Your task to perform on an android device: Open settings Image 0: 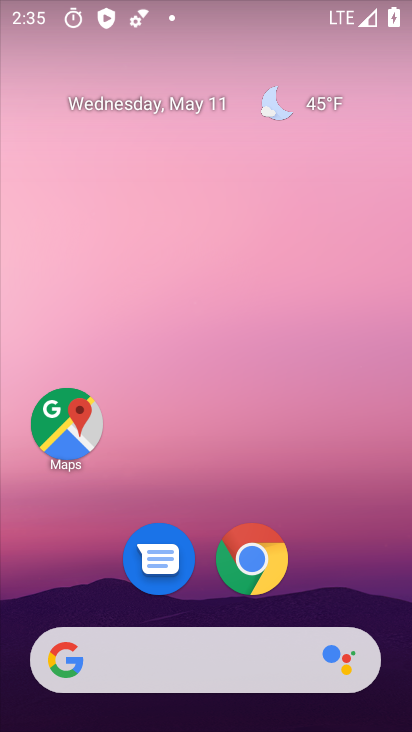
Step 0: drag from (317, 528) to (187, 93)
Your task to perform on an android device: Open settings Image 1: 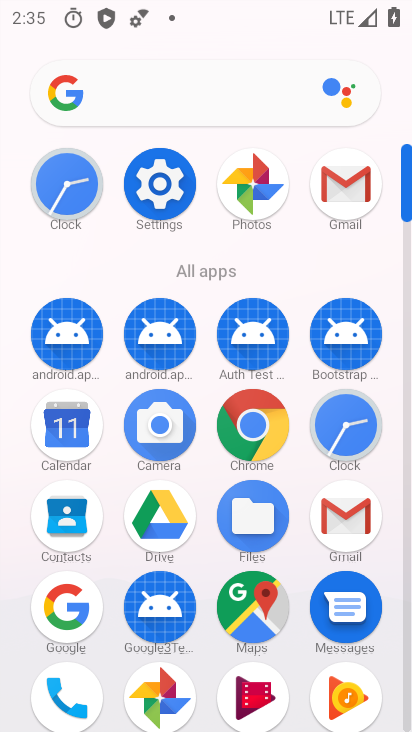
Step 1: click (160, 181)
Your task to perform on an android device: Open settings Image 2: 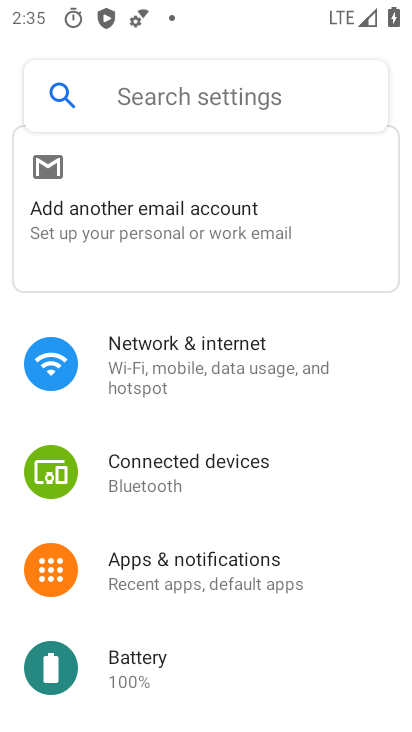
Step 2: task complete